Your task to perform on an android device: Open the Play Movies app and select the watchlist tab. Image 0: 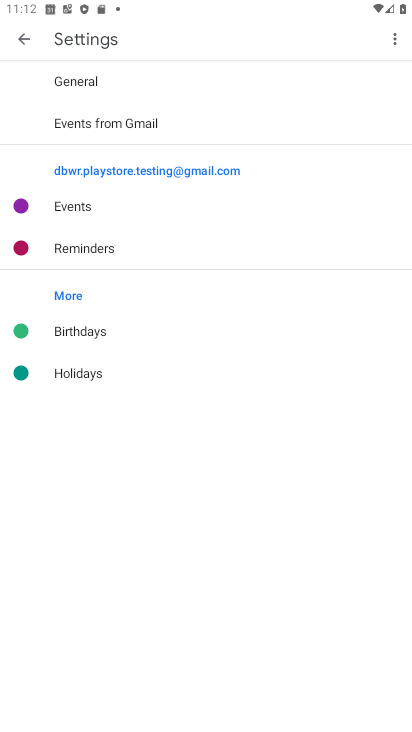
Step 0: press home button
Your task to perform on an android device: Open the Play Movies app and select the watchlist tab. Image 1: 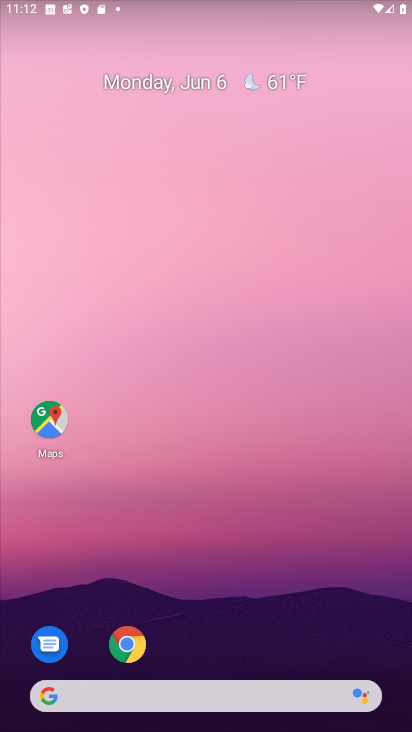
Step 1: drag from (197, 695) to (195, 84)
Your task to perform on an android device: Open the Play Movies app and select the watchlist tab. Image 2: 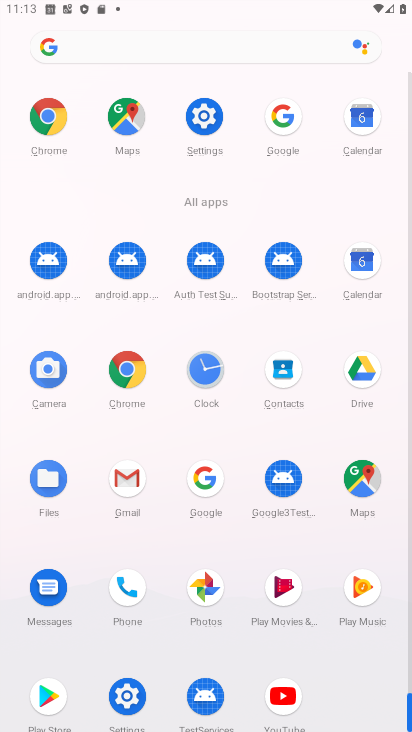
Step 2: click (284, 601)
Your task to perform on an android device: Open the Play Movies app and select the watchlist tab. Image 3: 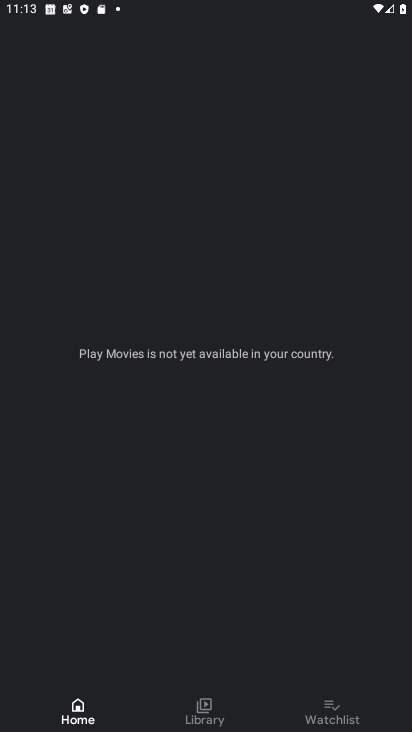
Step 3: click (327, 712)
Your task to perform on an android device: Open the Play Movies app and select the watchlist tab. Image 4: 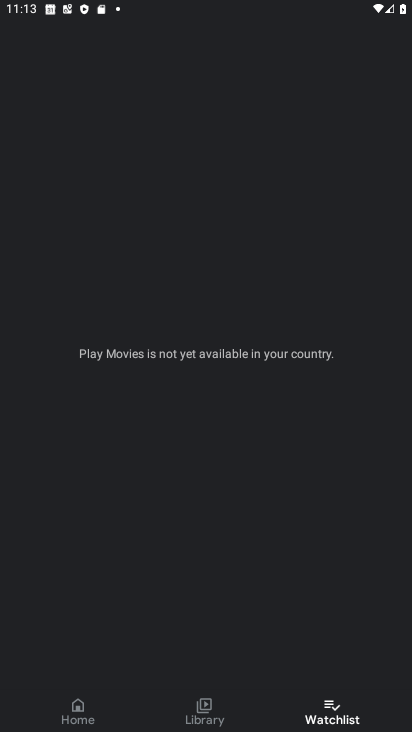
Step 4: task complete